Your task to perform on an android device: Open the calendar app, open the side menu, and click the "Day" option Image 0: 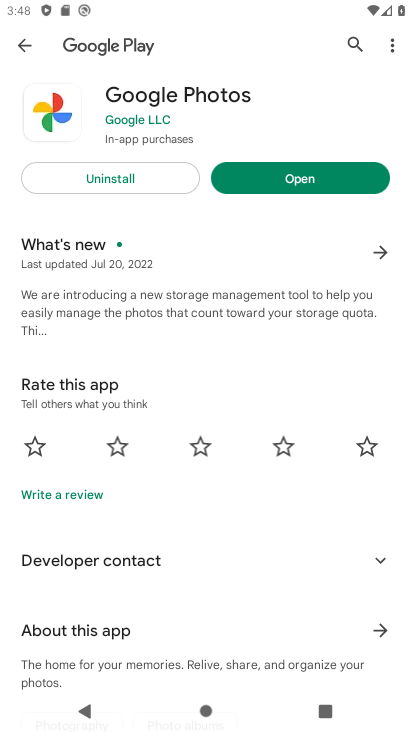
Step 0: press home button
Your task to perform on an android device: Open the calendar app, open the side menu, and click the "Day" option Image 1: 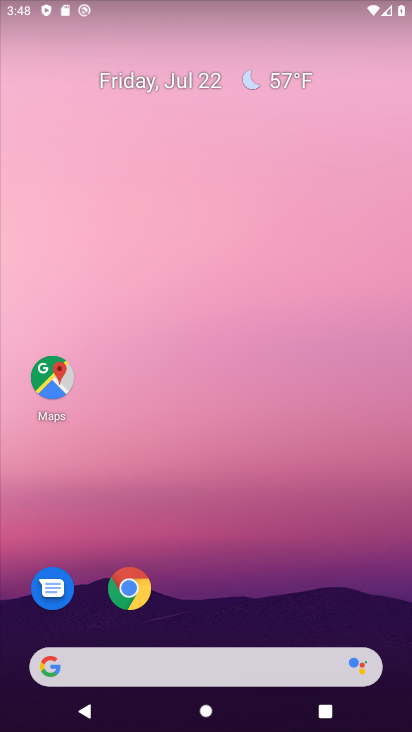
Step 1: drag from (185, 636) to (128, 136)
Your task to perform on an android device: Open the calendar app, open the side menu, and click the "Day" option Image 2: 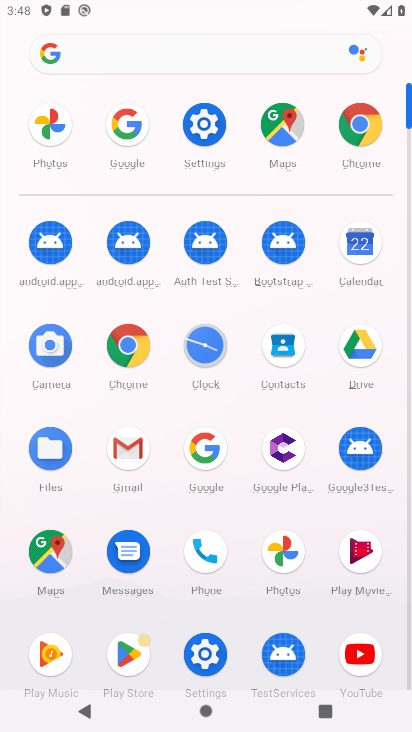
Step 2: click (345, 252)
Your task to perform on an android device: Open the calendar app, open the side menu, and click the "Day" option Image 3: 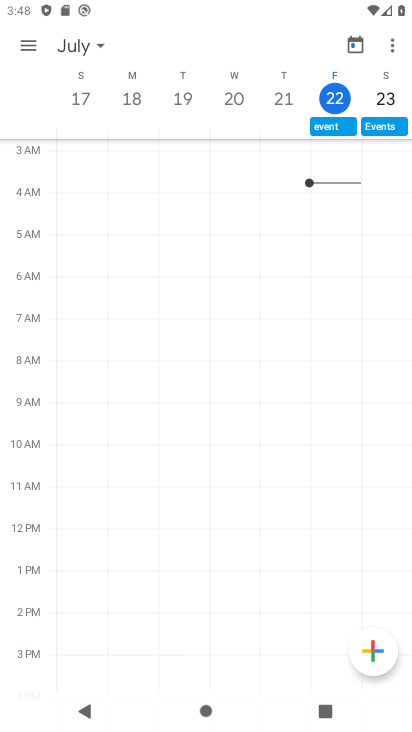
Step 3: click (25, 49)
Your task to perform on an android device: Open the calendar app, open the side menu, and click the "Day" option Image 4: 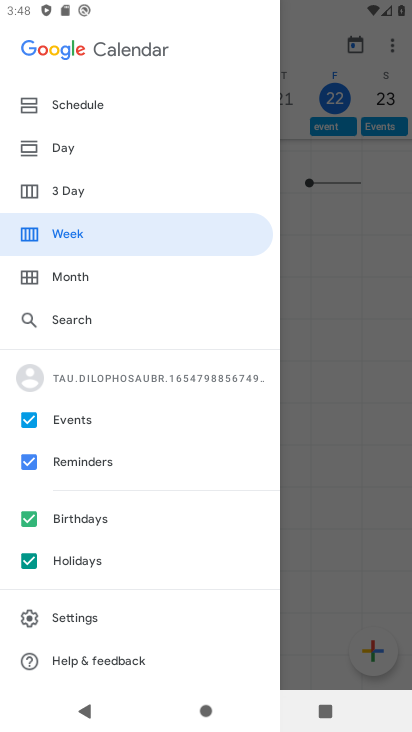
Step 4: click (70, 145)
Your task to perform on an android device: Open the calendar app, open the side menu, and click the "Day" option Image 5: 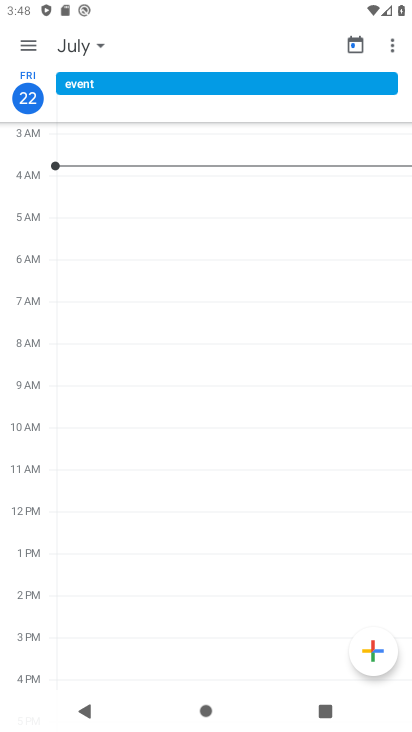
Step 5: task complete